Your task to perform on an android device: Open Google Chrome and click the shortcut for Amazon.com Image 0: 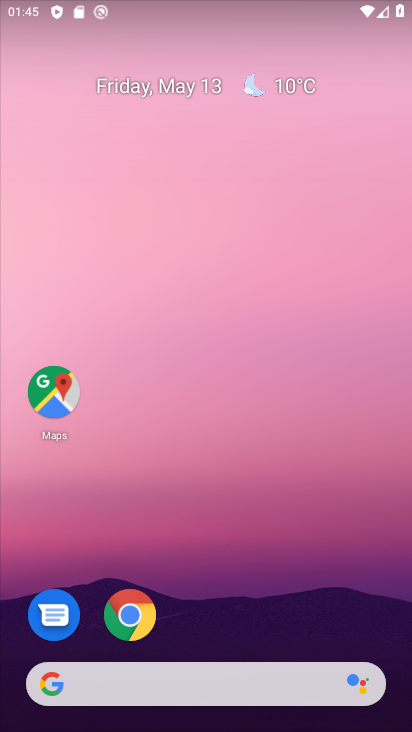
Step 0: click (130, 613)
Your task to perform on an android device: Open Google Chrome and click the shortcut for Amazon.com Image 1: 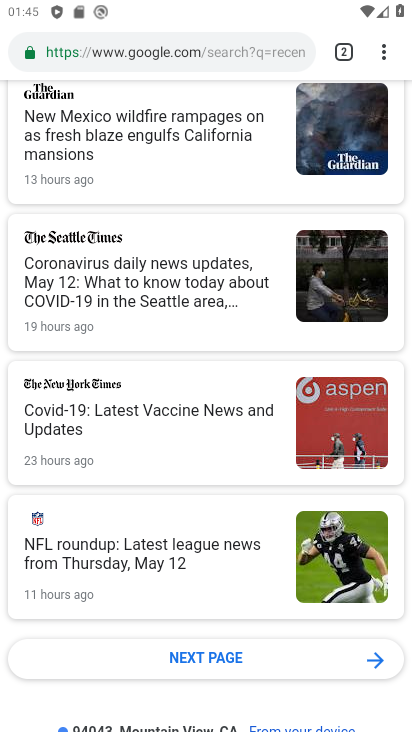
Step 1: click (341, 47)
Your task to perform on an android device: Open Google Chrome and click the shortcut for Amazon.com Image 2: 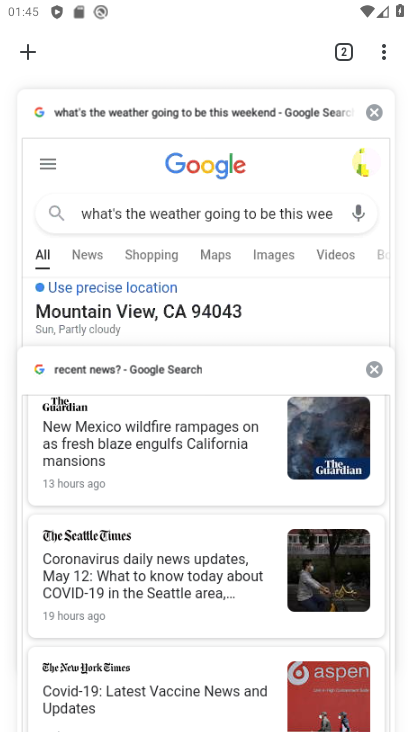
Step 2: click (28, 61)
Your task to perform on an android device: Open Google Chrome and click the shortcut for Amazon.com Image 3: 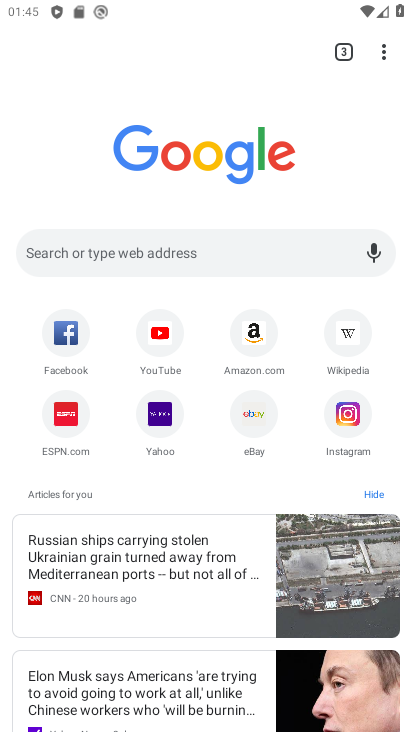
Step 3: click (250, 326)
Your task to perform on an android device: Open Google Chrome and click the shortcut for Amazon.com Image 4: 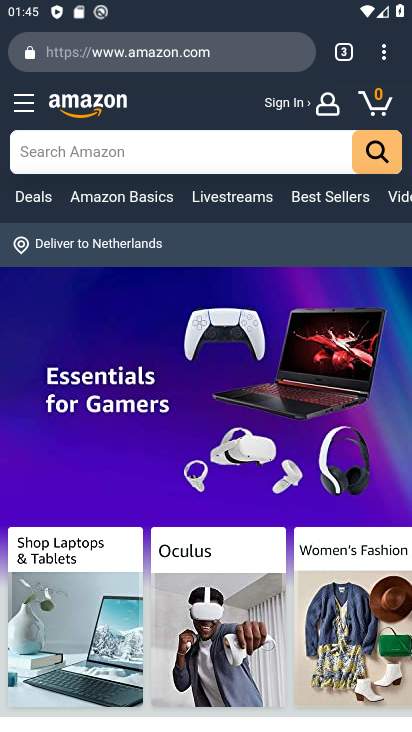
Step 4: task complete